Your task to perform on an android device: clear history in the chrome app Image 0: 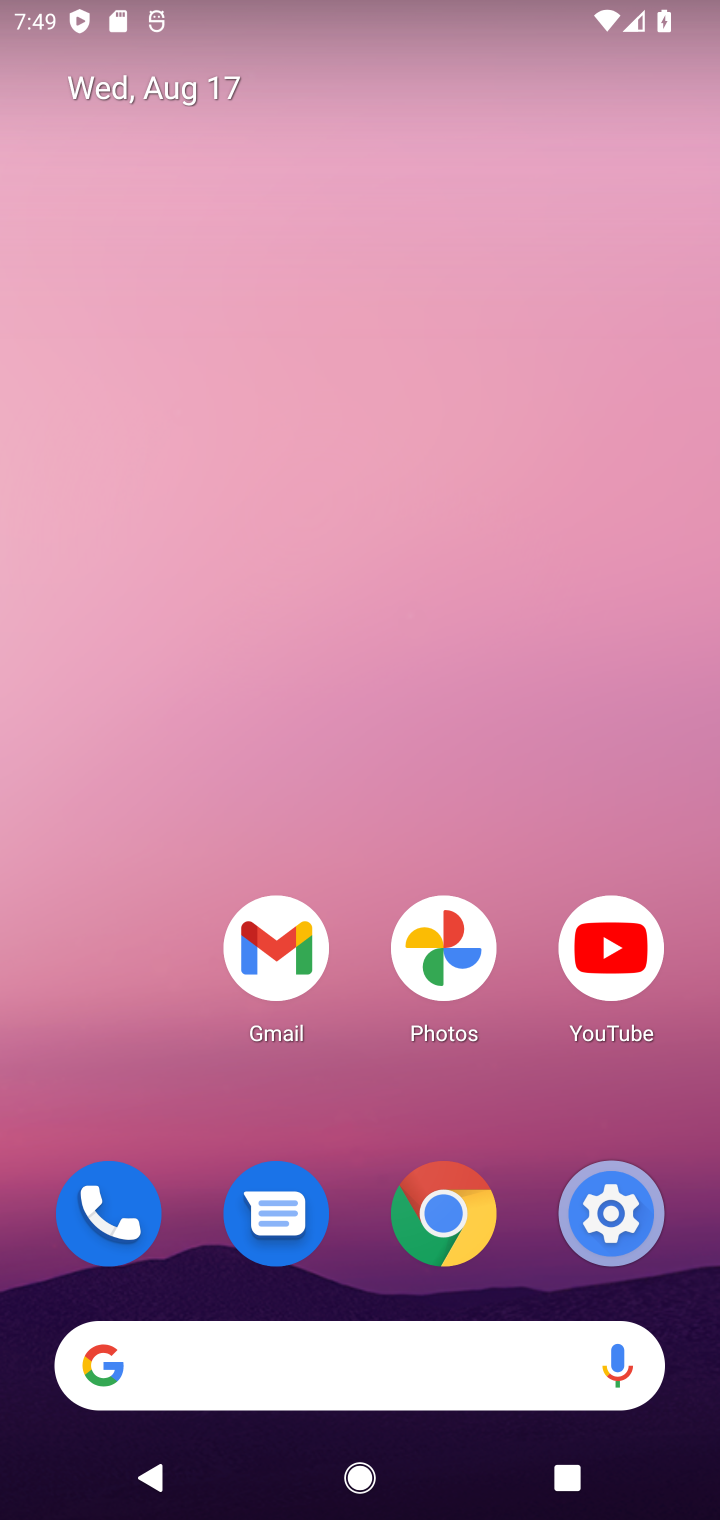
Step 0: click (459, 1232)
Your task to perform on an android device: clear history in the chrome app Image 1: 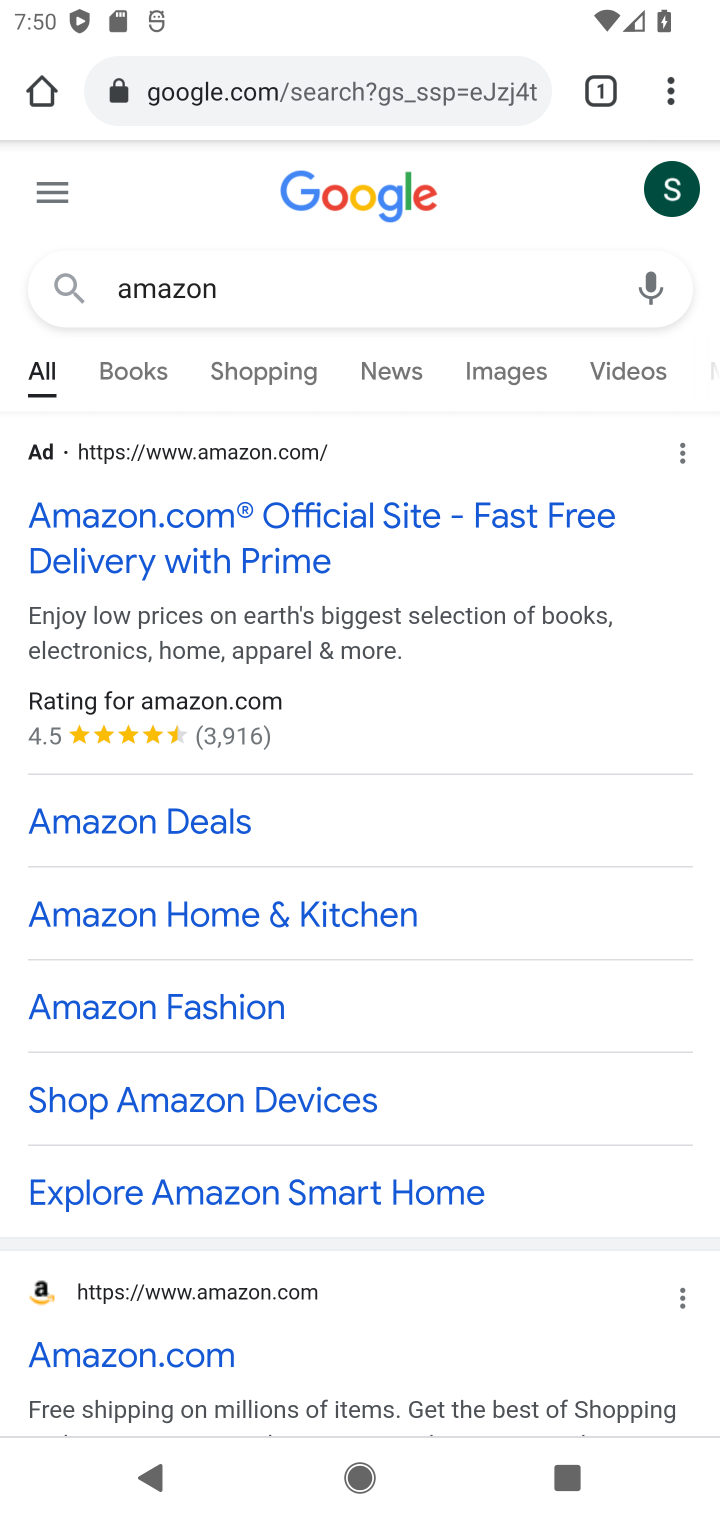
Step 1: click (681, 181)
Your task to perform on an android device: clear history in the chrome app Image 2: 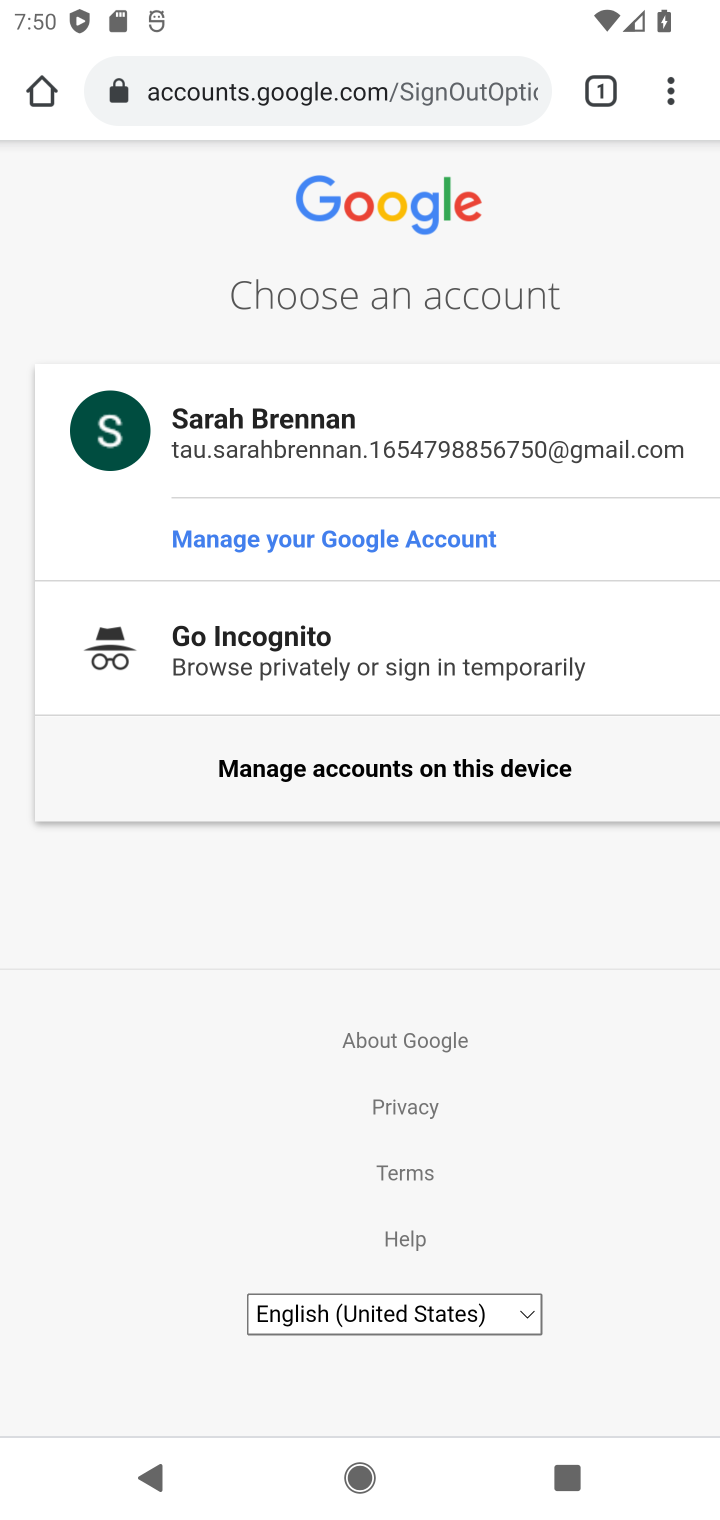
Step 2: click (666, 98)
Your task to perform on an android device: clear history in the chrome app Image 3: 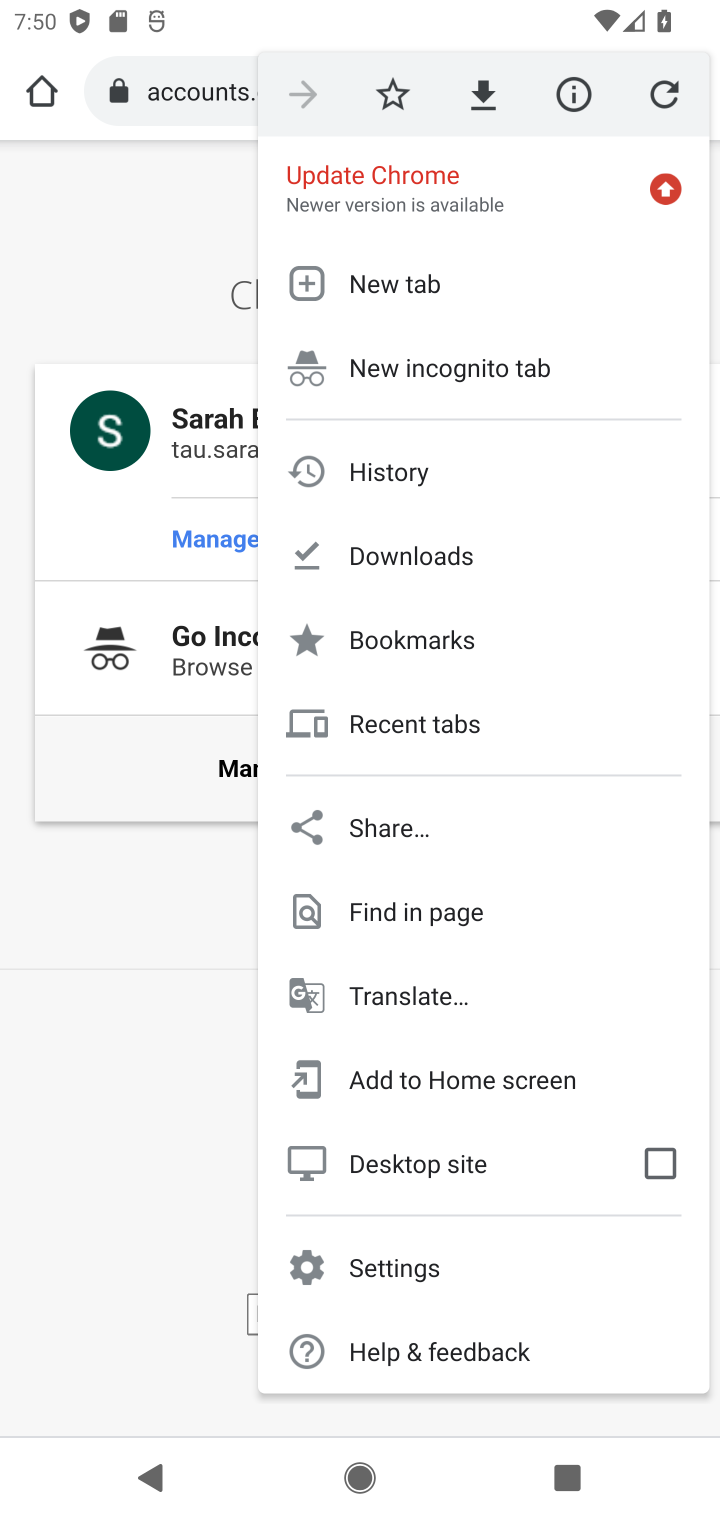
Step 3: click (365, 458)
Your task to perform on an android device: clear history in the chrome app Image 4: 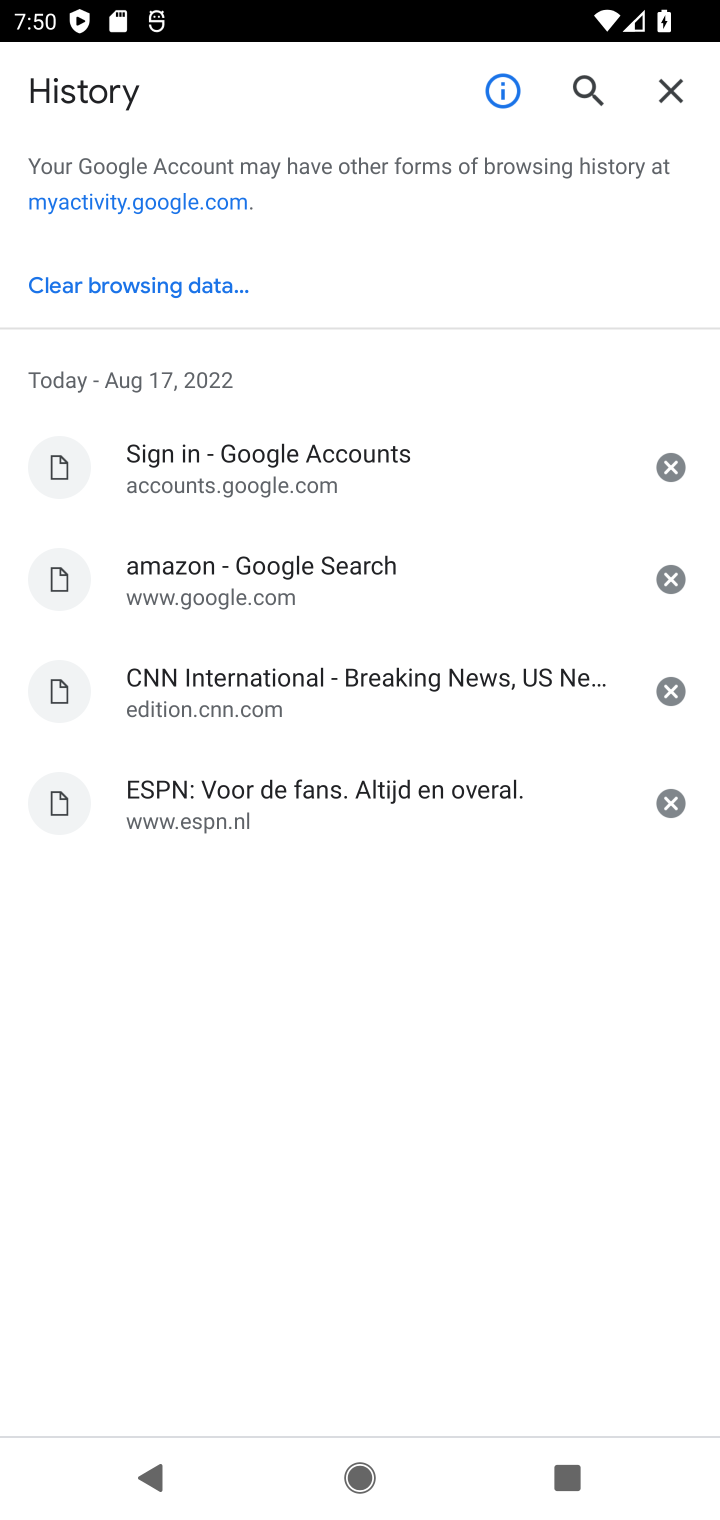
Step 4: task complete